Your task to perform on an android device: Check the weather Image 0: 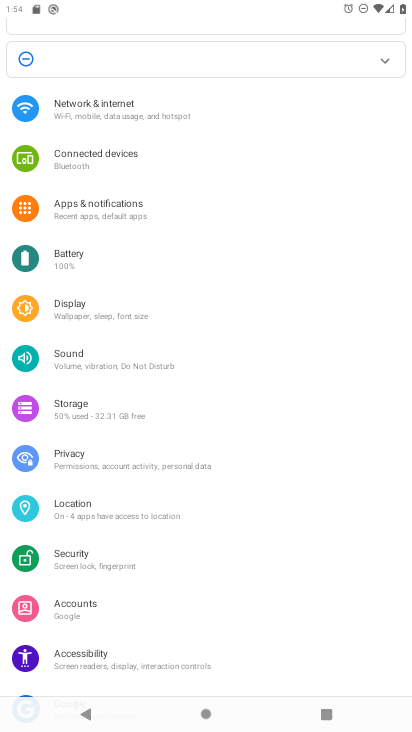
Step 0: press home button
Your task to perform on an android device: Check the weather Image 1: 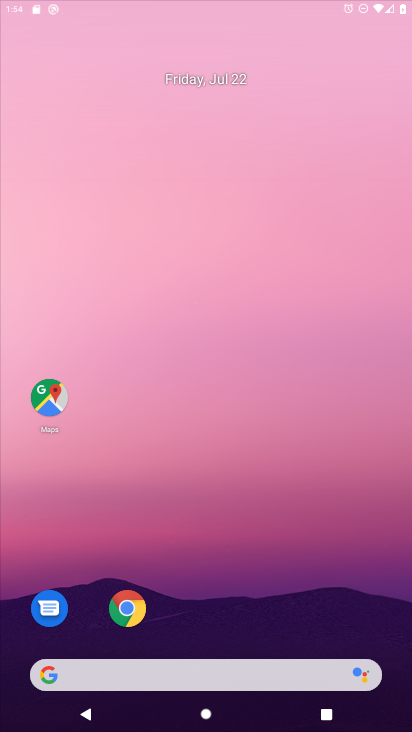
Step 1: drag from (382, 651) to (159, 45)
Your task to perform on an android device: Check the weather Image 2: 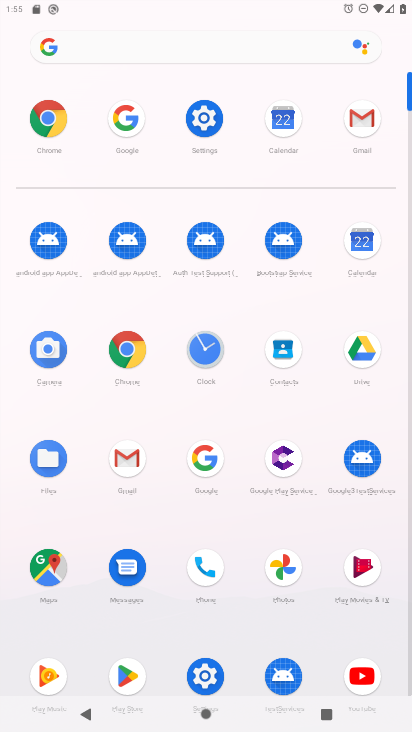
Step 2: click (204, 472)
Your task to perform on an android device: Check the weather Image 3: 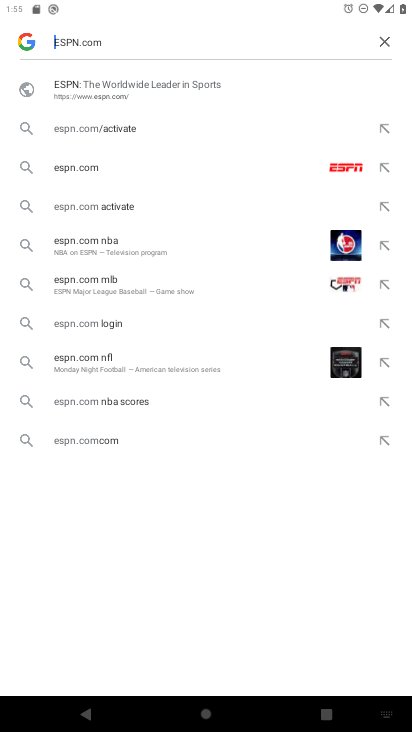
Step 3: click (384, 45)
Your task to perform on an android device: Check the weather Image 4: 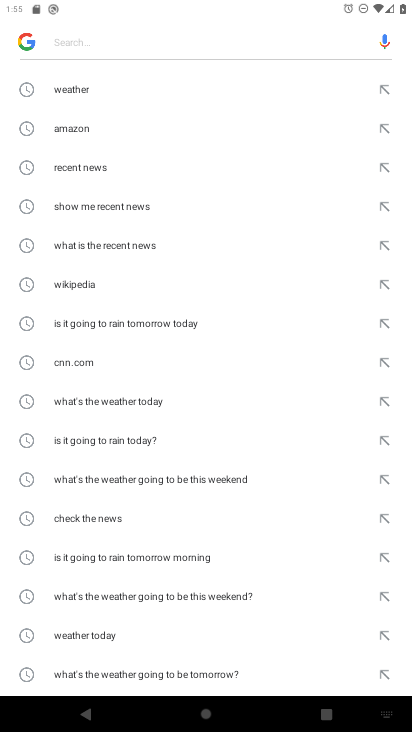
Step 4: click (92, 86)
Your task to perform on an android device: Check the weather Image 5: 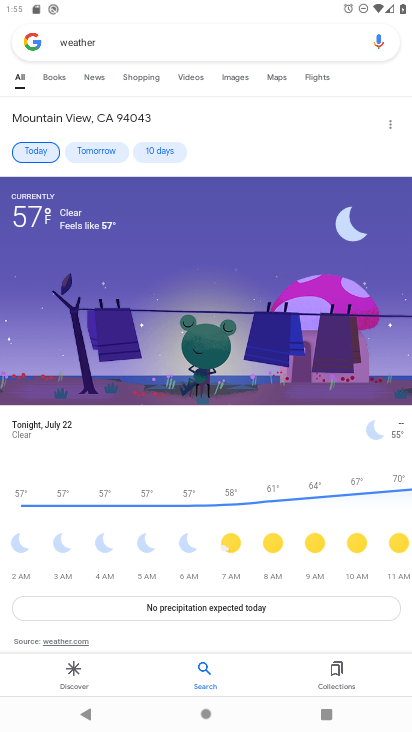
Step 5: task complete